Your task to perform on an android device: Go to Amazon Image 0: 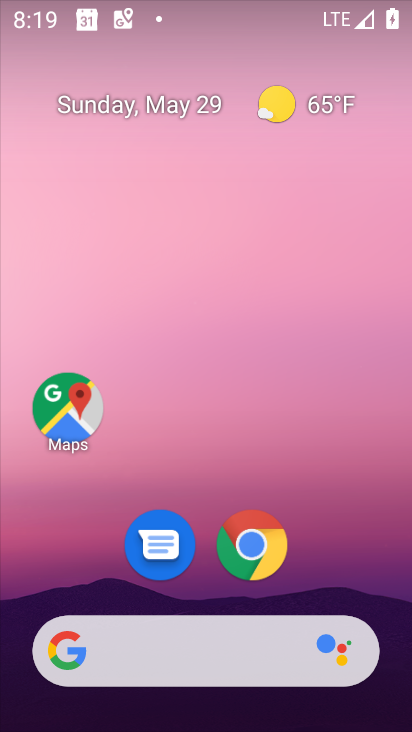
Step 0: click (258, 541)
Your task to perform on an android device: Go to Amazon Image 1: 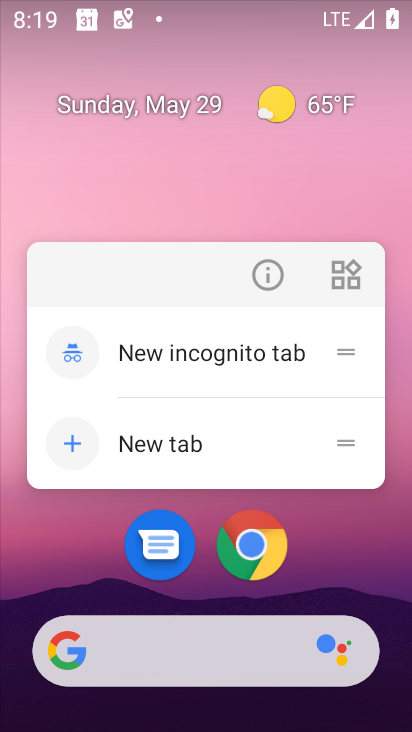
Step 1: click (273, 280)
Your task to perform on an android device: Go to Amazon Image 2: 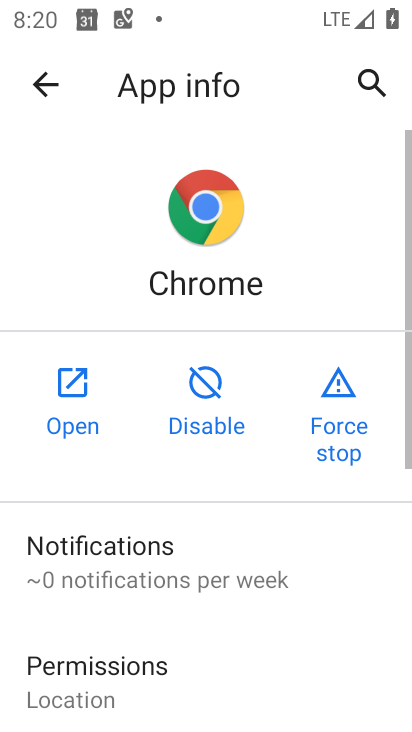
Step 2: click (42, 413)
Your task to perform on an android device: Go to Amazon Image 3: 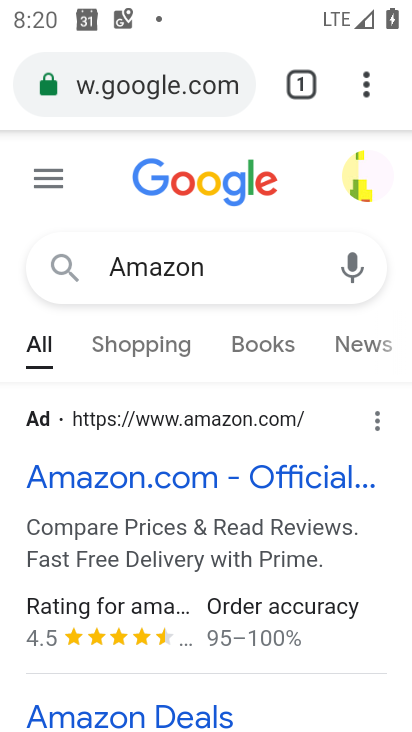
Step 3: click (158, 92)
Your task to perform on an android device: Go to Amazon Image 4: 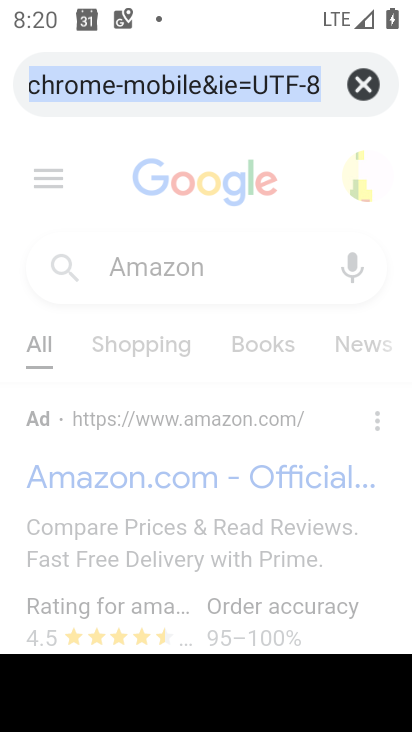
Step 4: type "Amazon"
Your task to perform on an android device: Go to Amazon Image 5: 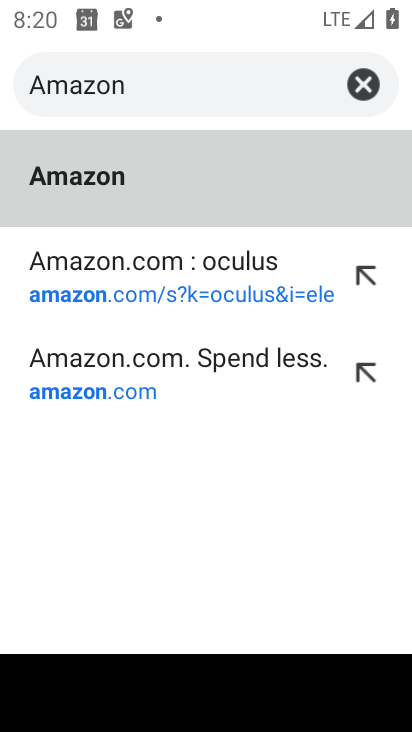
Step 5: click (58, 167)
Your task to perform on an android device: Go to Amazon Image 6: 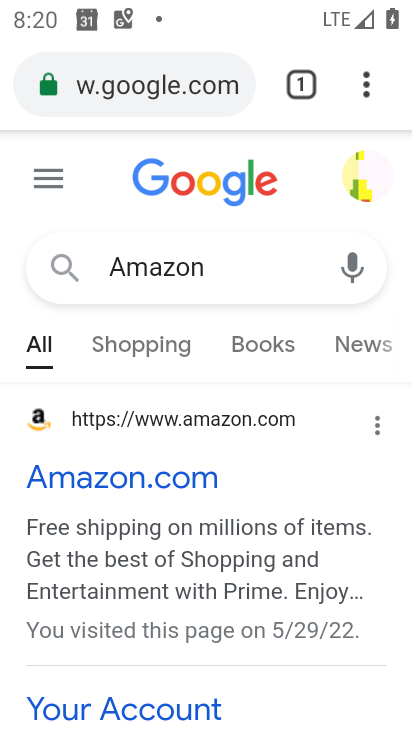
Step 6: task complete